Your task to perform on an android device: Open Youtube and go to the subscriptions tab Image 0: 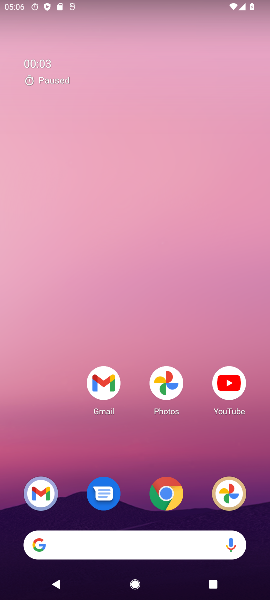
Step 0: click (222, 384)
Your task to perform on an android device: Open Youtube and go to the subscriptions tab Image 1: 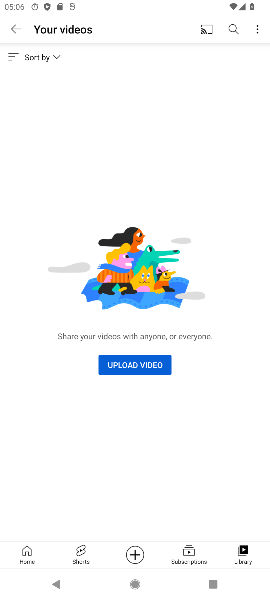
Step 1: click (185, 548)
Your task to perform on an android device: Open Youtube and go to the subscriptions tab Image 2: 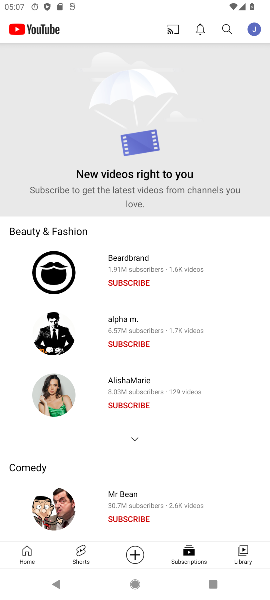
Step 2: task complete